Your task to perform on an android device: toggle translation in the chrome app Image 0: 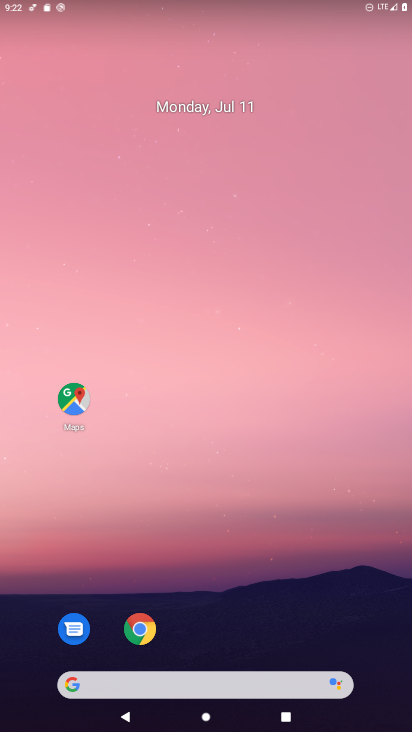
Step 0: click (143, 631)
Your task to perform on an android device: toggle translation in the chrome app Image 1: 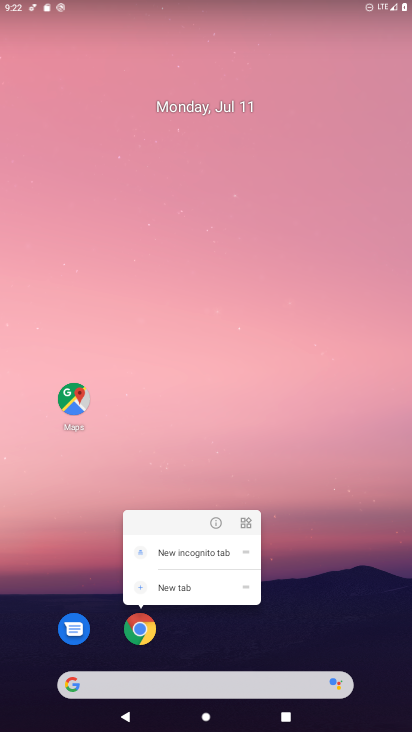
Step 1: click (192, 587)
Your task to perform on an android device: toggle translation in the chrome app Image 2: 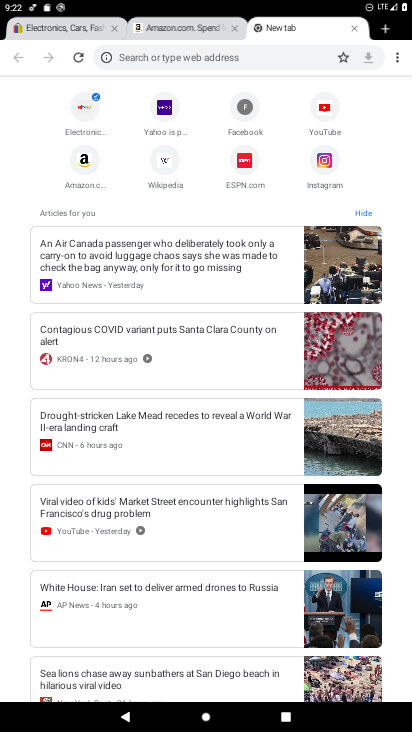
Step 2: click (391, 55)
Your task to perform on an android device: toggle translation in the chrome app Image 3: 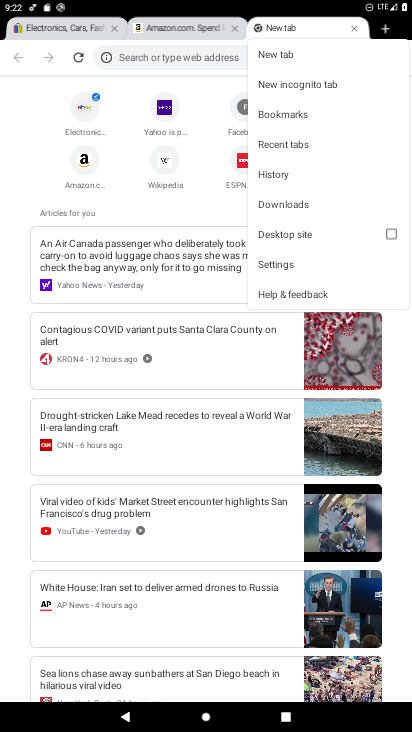
Step 3: click (300, 264)
Your task to perform on an android device: toggle translation in the chrome app Image 4: 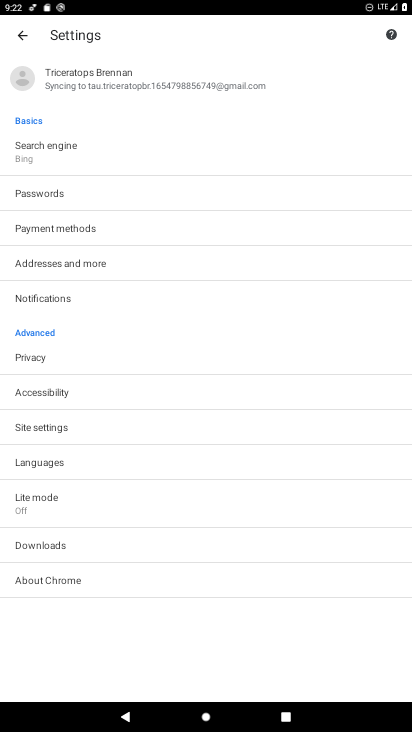
Step 4: click (101, 462)
Your task to perform on an android device: toggle translation in the chrome app Image 5: 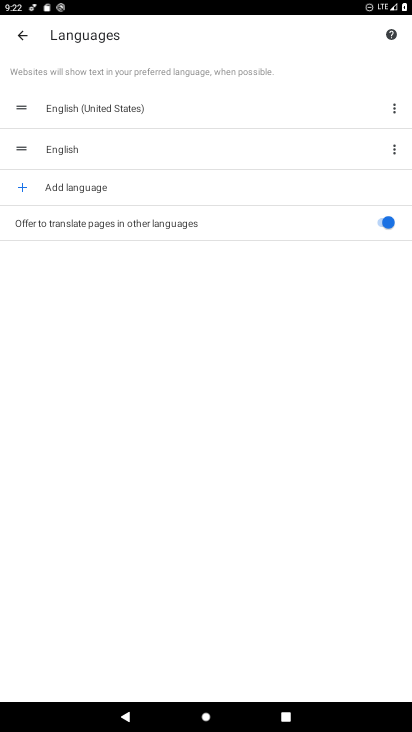
Step 5: click (387, 225)
Your task to perform on an android device: toggle translation in the chrome app Image 6: 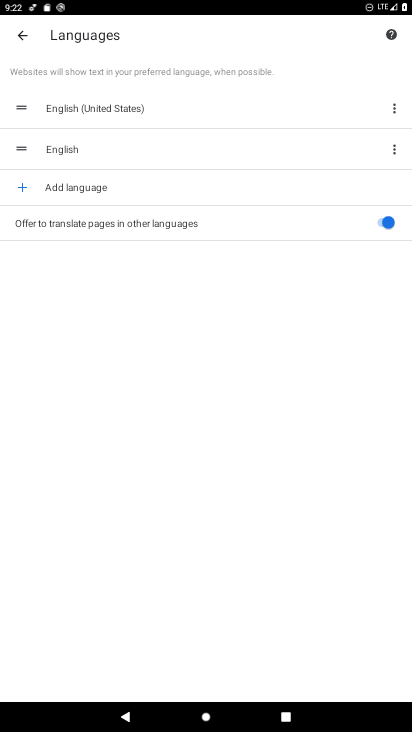
Step 6: click (387, 225)
Your task to perform on an android device: toggle translation in the chrome app Image 7: 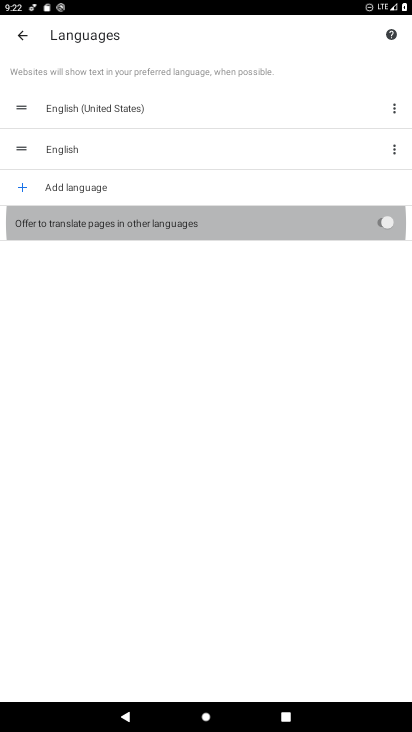
Step 7: click (387, 225)
Your task to perform on an android device: toggle translation in the chrome app Image 8: 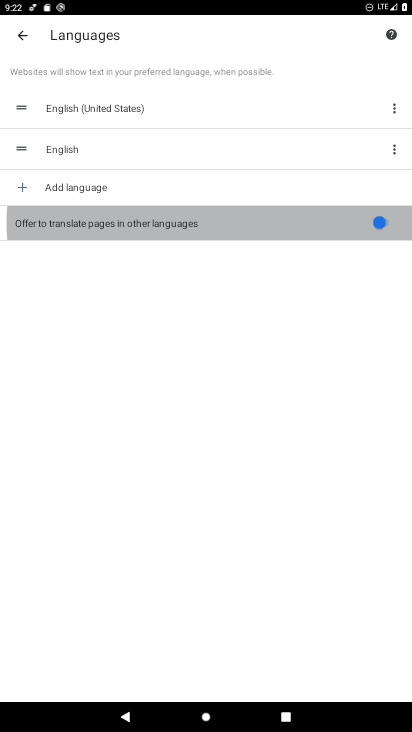
Step 8: click (387, 225)
Your task to perform on an android device: toggle translation in the chrome app Image 9: 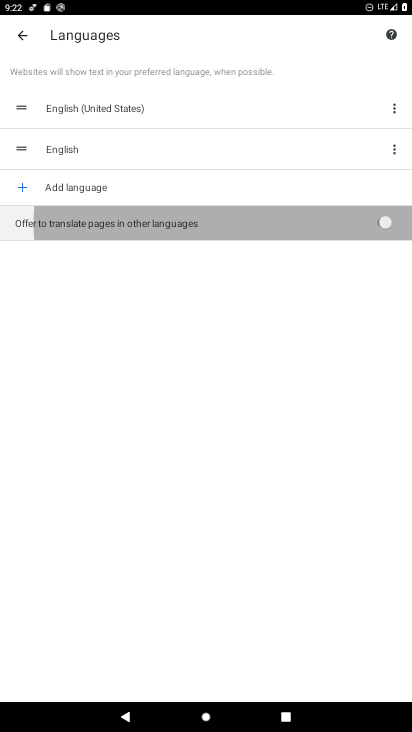
Step 9: click (387, 225)
Your task to perform on an android device: toggle translation in the chrome app Image 10: 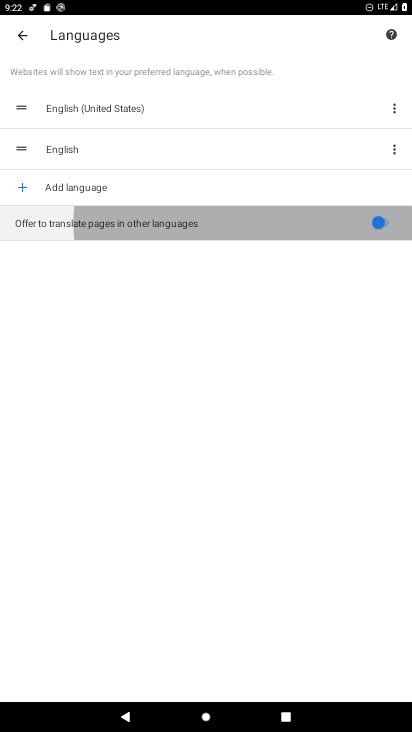
Step 10: click (387, 225)
Your task to perform on an android device: toggle translation in the chrome app Image 11: 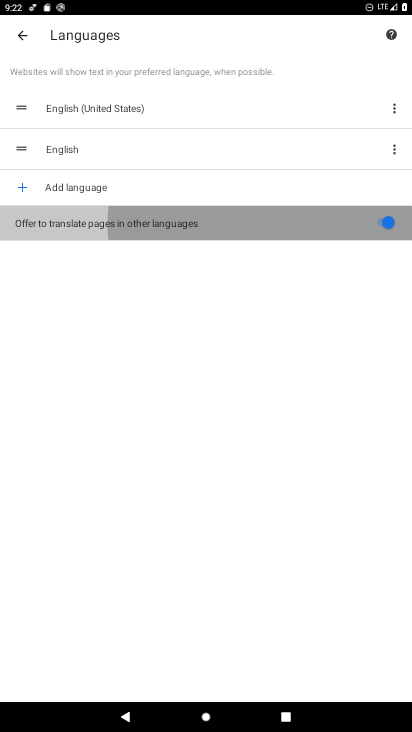
Step 11: click (387, 225)
Your task to perform on an android device: toggle translation in the chrome app Image 12: 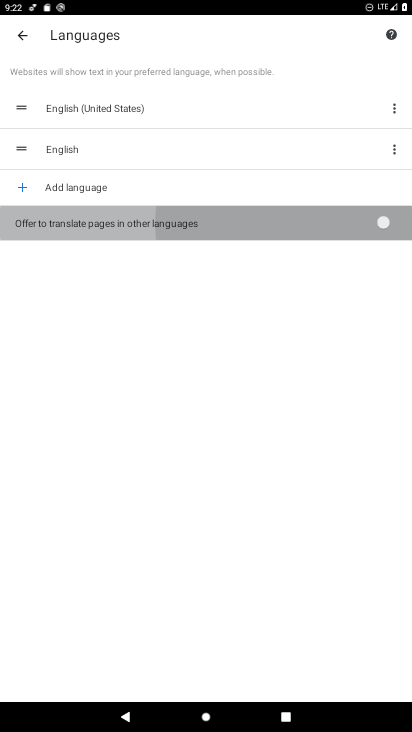
Step 12: click (387, 225)
Your task to perform on an android device: toggle translation in the chrome app Image 13: 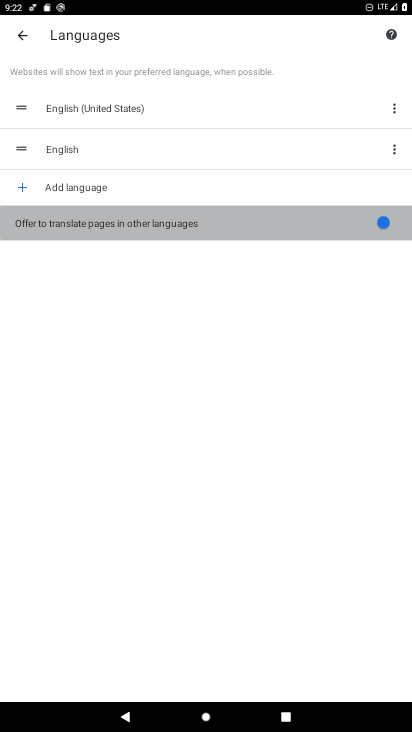
Step 13: click (387, 225)
Your task to perform on an android device: toggle translation in the chrome app Image 14: 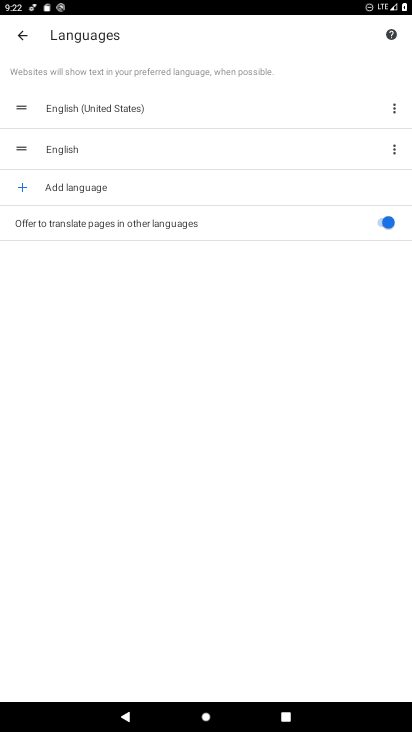
Step 14: task complete